Your task to perform on an android device: Open Google Maps and go to "Timeline" Image 0: 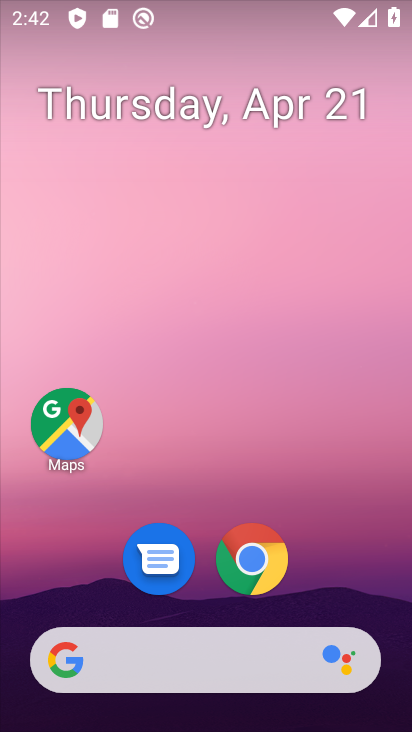
Step 0: drag from (313, 577) to (291, 6)
Your task to perform on an android device: Open Google Maps and go to "Timeline" Image 1: 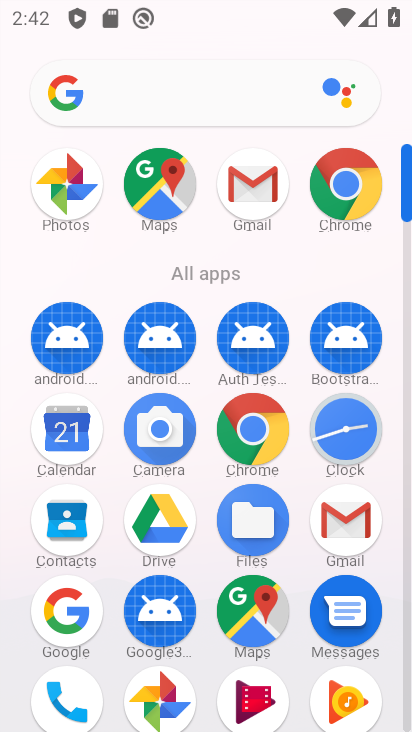
Step 1: click (142, 185)
Your task to perform on an android device: Open Google Maps and go to "Timeline" Image 2: 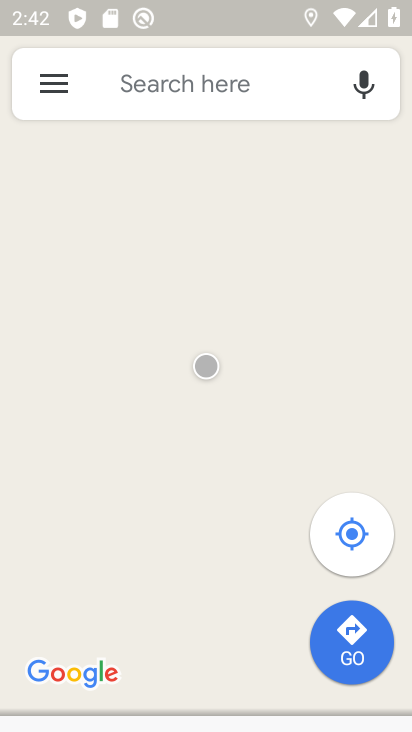
Step 2: click (44, 83)
Your task to perform on an android device: Open Google Maps and go to "Timeline" Image 3: 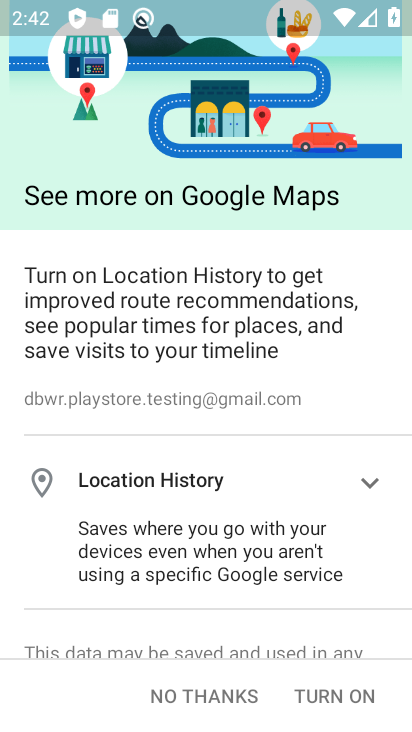
Step 3: click (324, 696)
Your task to perform on an android device: Open Google Maps and go to "Timeline" Image 4: 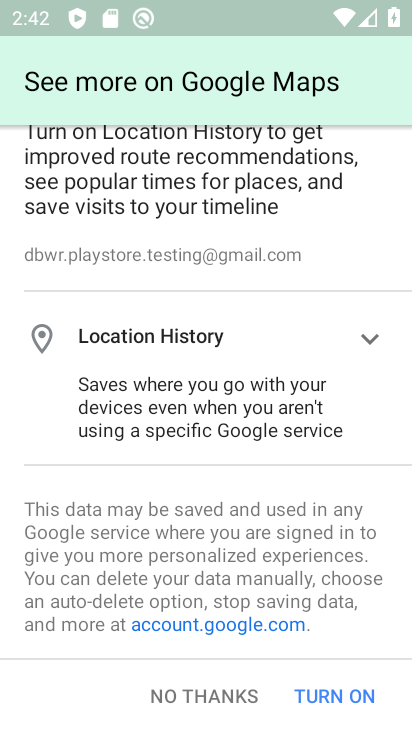
Step 4: click (325, 695)
Your task to perform on an android device: Open Google Maps and go to "Timeline" Image 5: 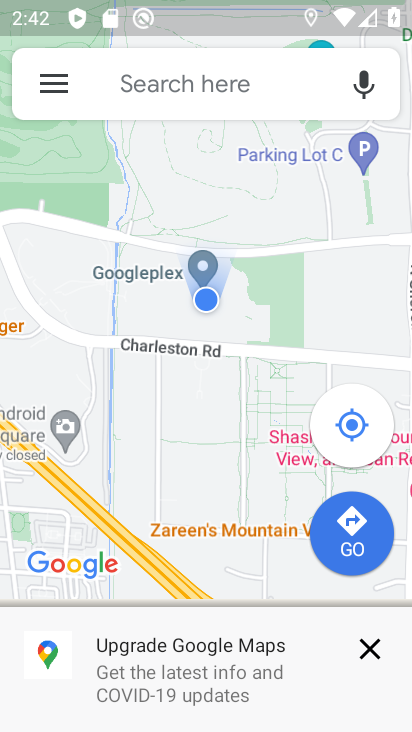
Step 5: click (45, 87)
Your task to perform on an android device: Open Google Maps and go to "Timeline" Image 6: 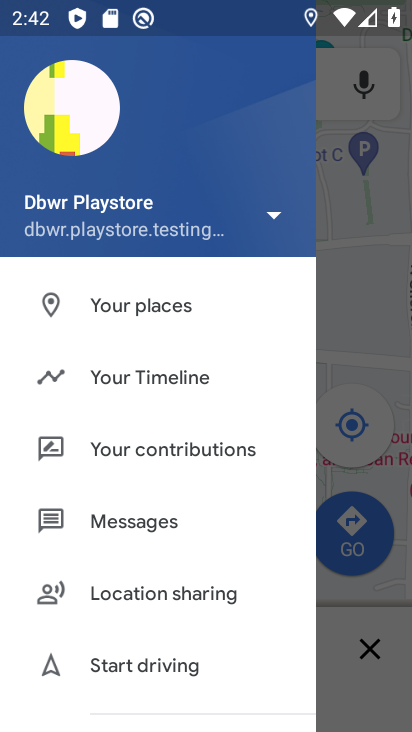
Step 6: click (134, 377)
Your task to perform on an android device: Open Google Maps and go to "Timeline" Image 7: 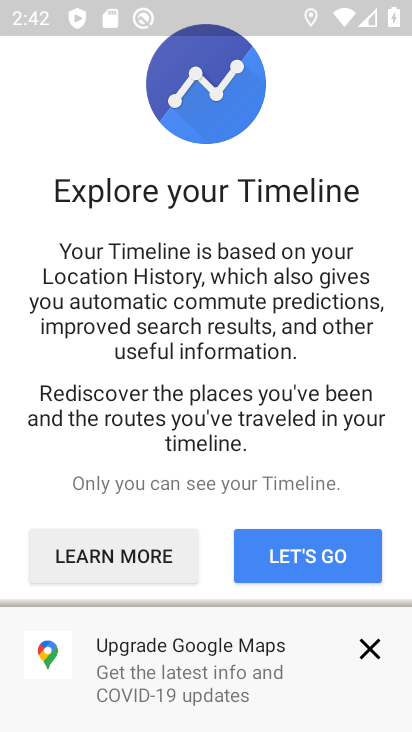
Step 7: click (325, 559)
Your task to perform on an android device: Open Google Maps and go to "Timeline" Image 8: 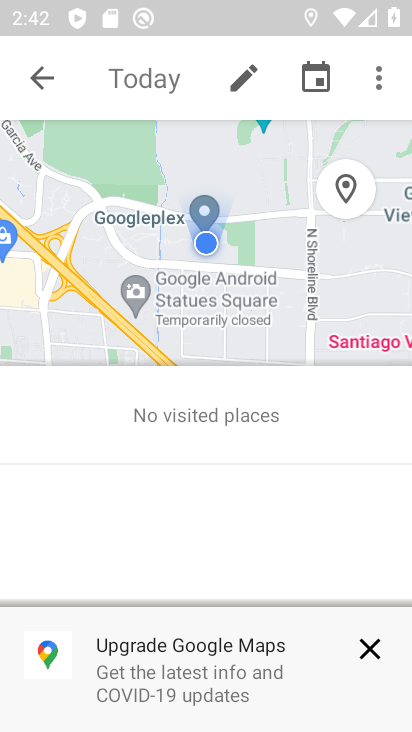
Step 8: task complete